Your task to perform on an android device: turn on priority inbox in the gmail app Image 0: 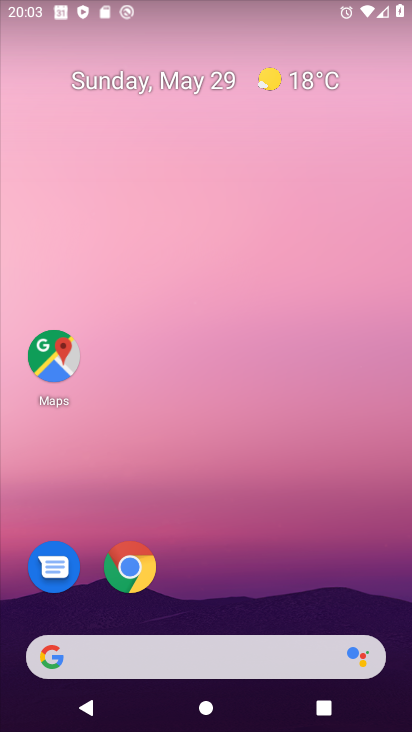
Step 0: drag from (388, 693) to (332, 75)
Your task to perform on an android device: turn on priority inbox in the gmail app Image 1: 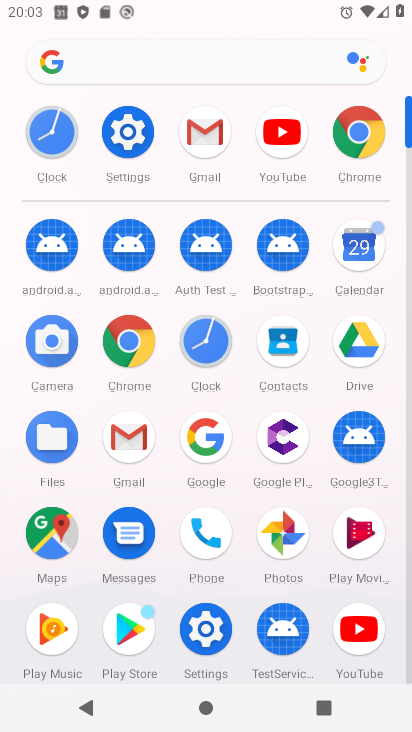
Step 1: click (197, 145)
Your task to perform on an android device: turn on priority inbox in the gmail app Image 2: 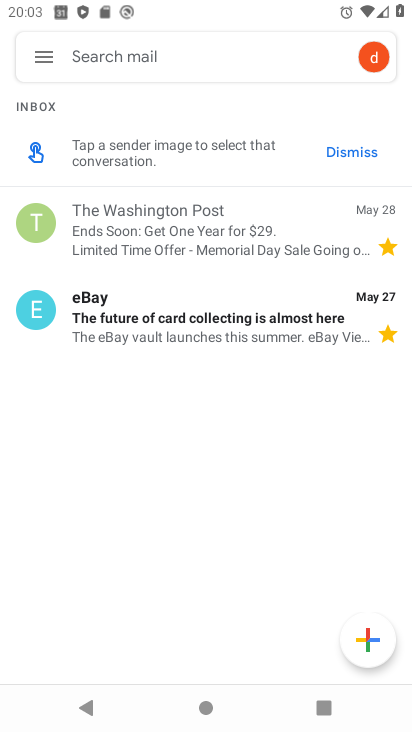
Step 2: click (37, 57)
Your task to perform on an android device: turn on priority inbox in the gmail app Image 3: 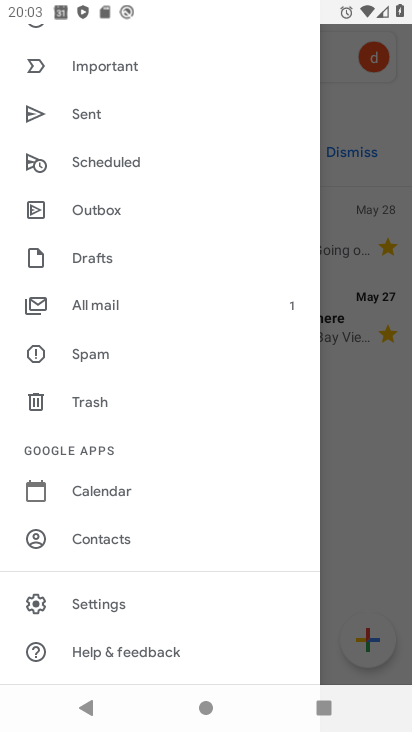
Step 3: click (105, 601)
Your task to perform on an android device: turn on priority inbox in the gmail app Image 4: 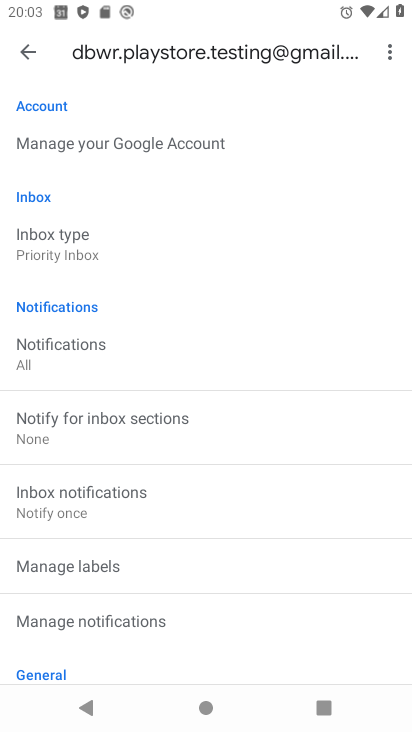
Step 4: click (56, 240)
Your task to perform on an android device: turn on priority inbox in the gmail app Image 5: 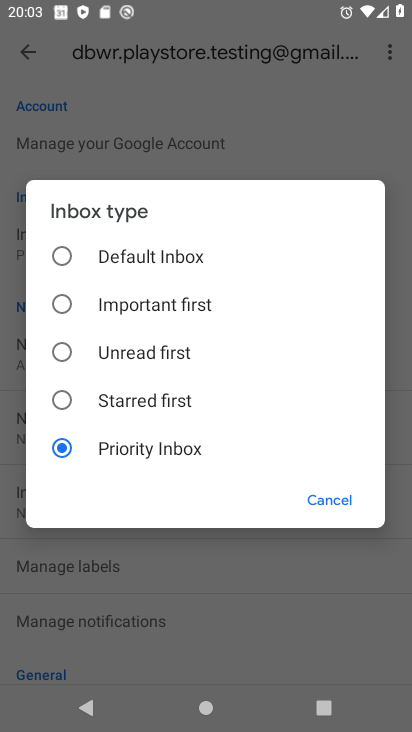
Step 5: task complete